Your task to perform on an android device: What's on my calendar today? Image 0: 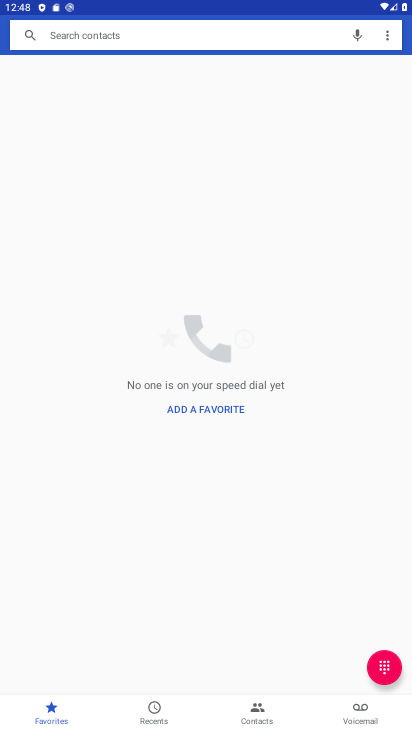
Step 0: press home button
Your task to perform on an android device: What's on my calendar today? Image 1: 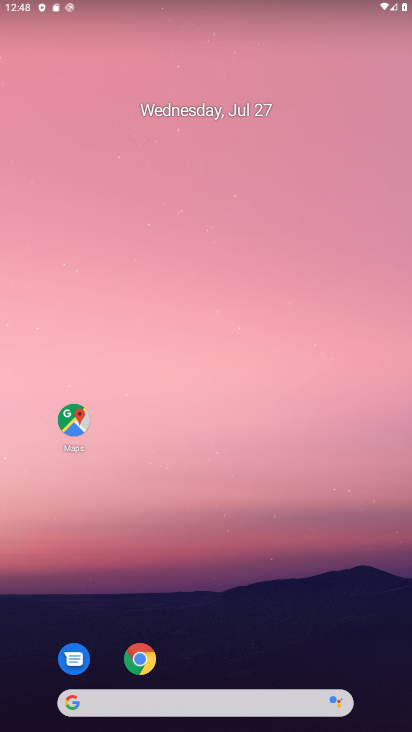
Step 1: drag from (285, 589) to (272, 36)
Your task to perform on an android device: What's on my calendar today? Image 2: 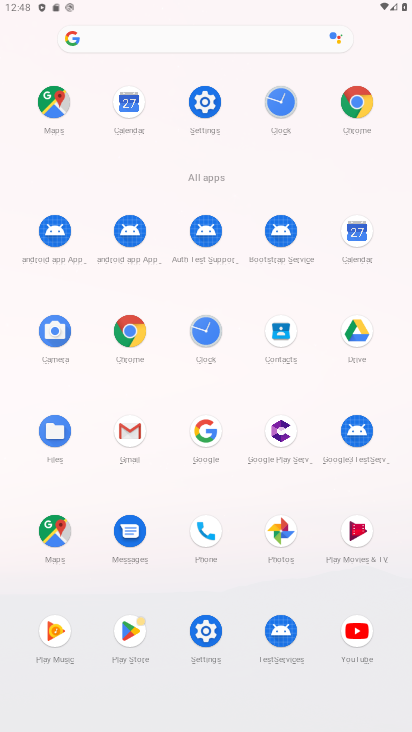
Step 2: click (359, 231)
Your task to perform on an android device: What's on my calendar today? Image 3: 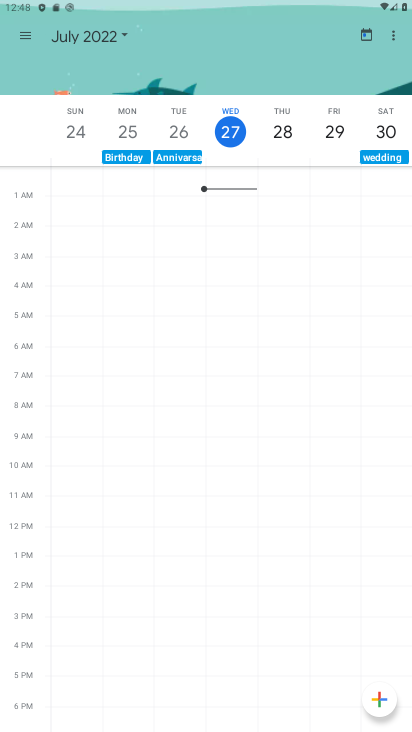
Step 3: click (227, 115)
Your task to perform on an android device: What's on my calendar today? Image 4: 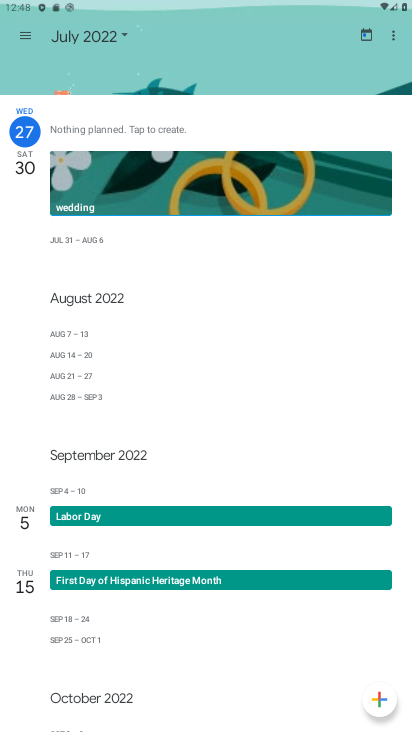
Step 4: task complete